Your task to perform on an android device: Open Google Maps Image 0: 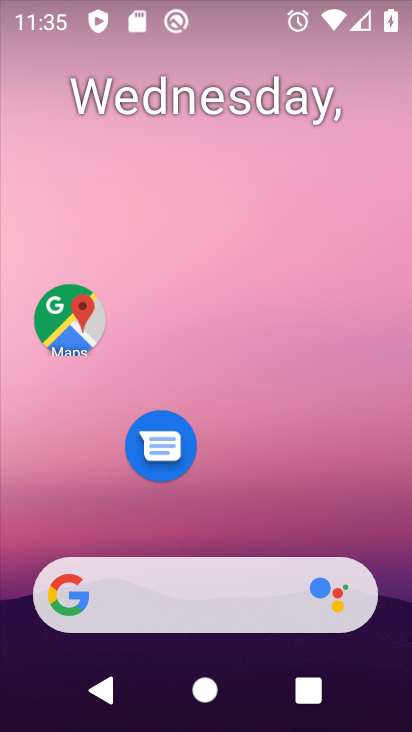
Step 0: click (55, 305)
Your task to perform on an android device: Open Google Maps Image 1: 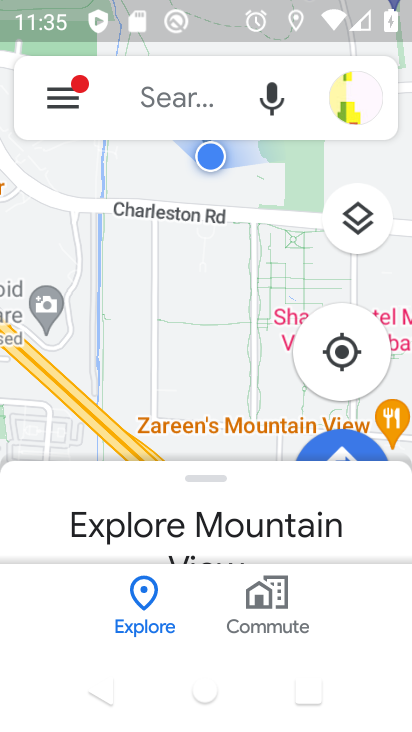
Step 1: task complete